Your task to perform on an android device: open sync settings in chrome Image 0: 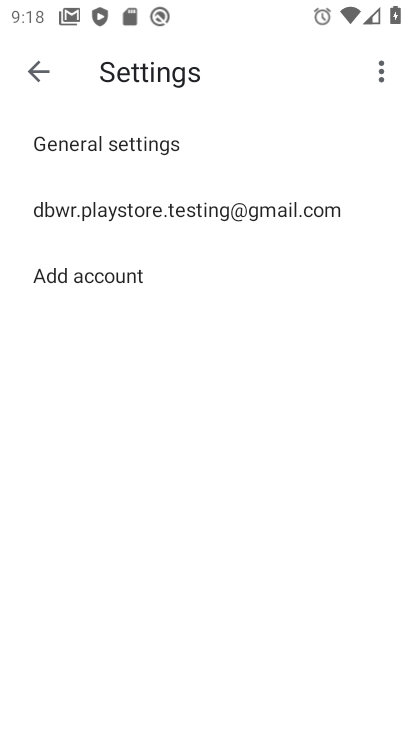
Step 0: press home button
Your task to perform on an android device: open sync settings in chrome Image 1: 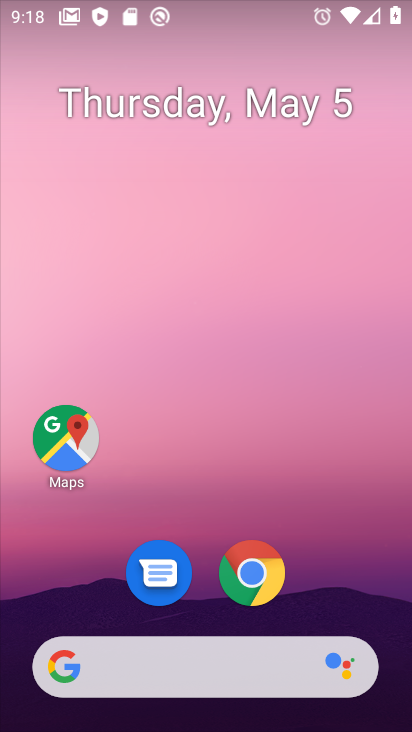
Step 1: click (246, 576)
Your task to perform on an android device: open sync settings in chrome Image 2: 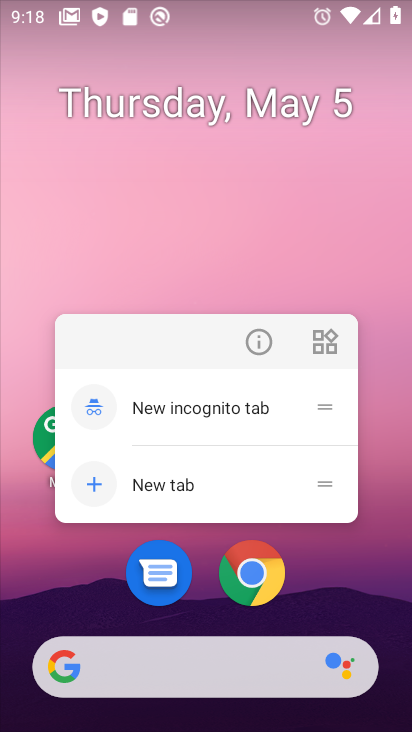
Step 2: click (250, 577)
Your task to perform on an android device: open sync settings in chrome Image 3: 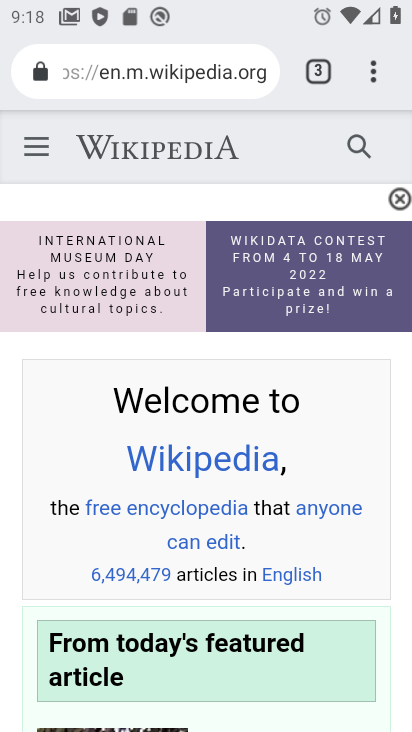
Step 3: click (373, 71)
Your task to perform on an android device: open sync settings in chrome Image 4: 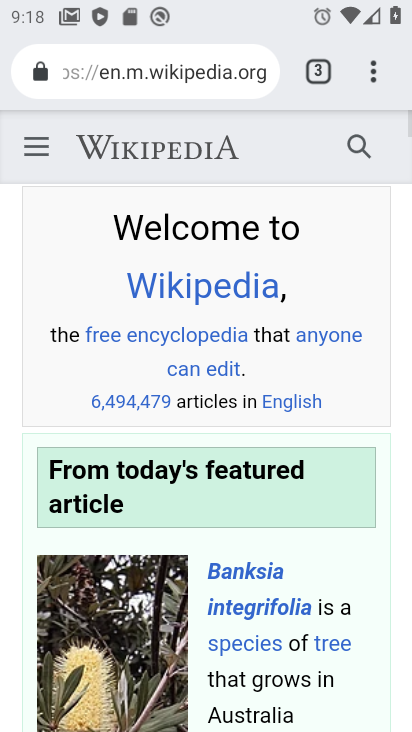
Step 4: drag from (373, 70) to (134, 560)
Your task to perform on an android device: open sync settings in chrome Image 5: 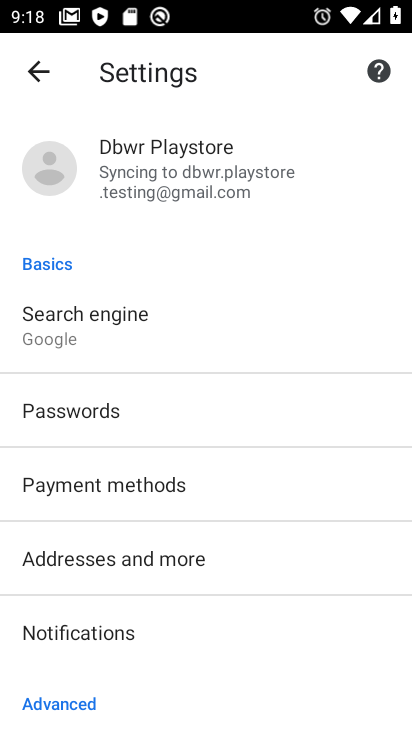
Step 5: click (171, 174)
Your task to perform on an android device: open sync settings in chrome Image 6: 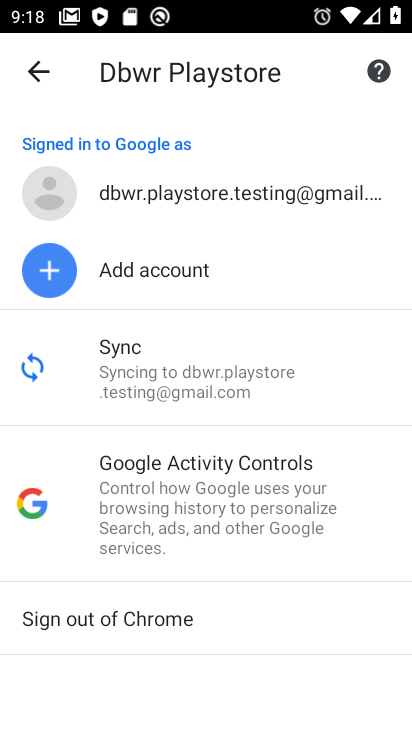
Step 6: task complete